Your task to perform on an android device: change the clock display to digital Image 0: 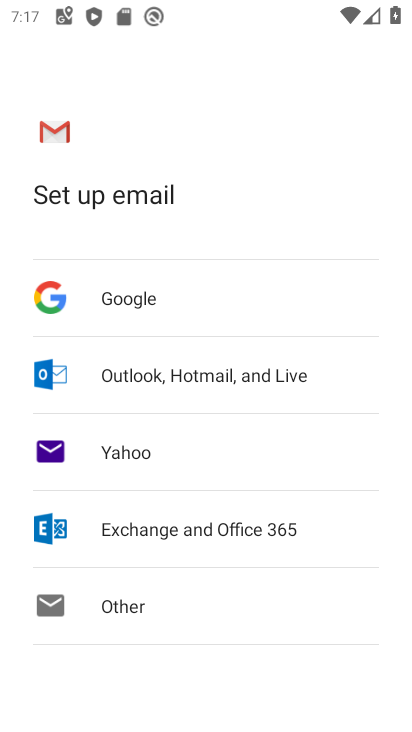
Step 0: press home button
Your task to perform on an android device: change the clock display to digital Image 1: 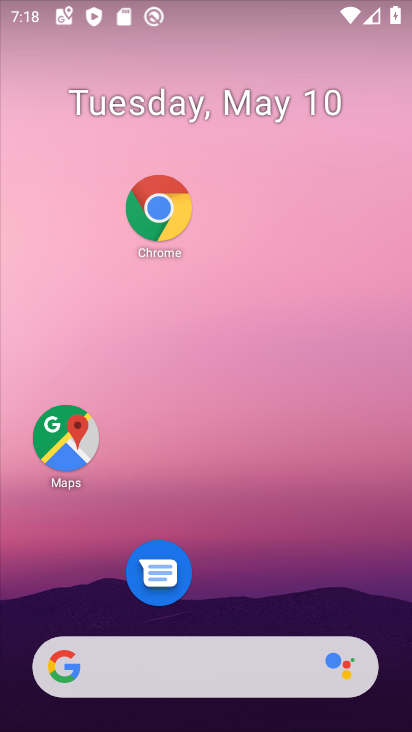
Step 1: drag from (310, 704) to (265, 186)
Your task to perform on an android device: change the clock display to digital Image 2: 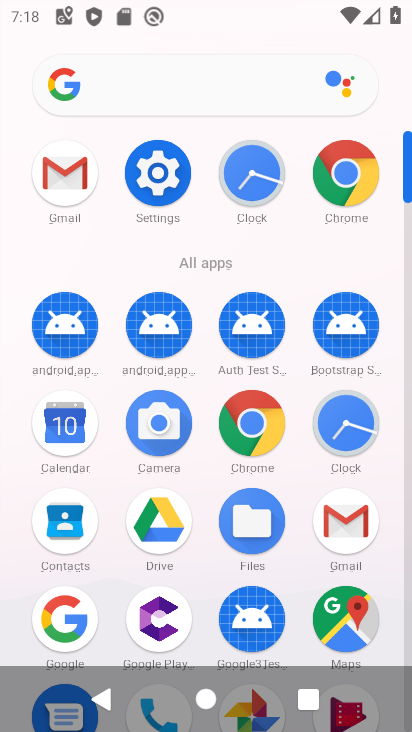
Step 2: click (258, 185)
Your task to perform on an android device: change the clock display to digital Image 3: 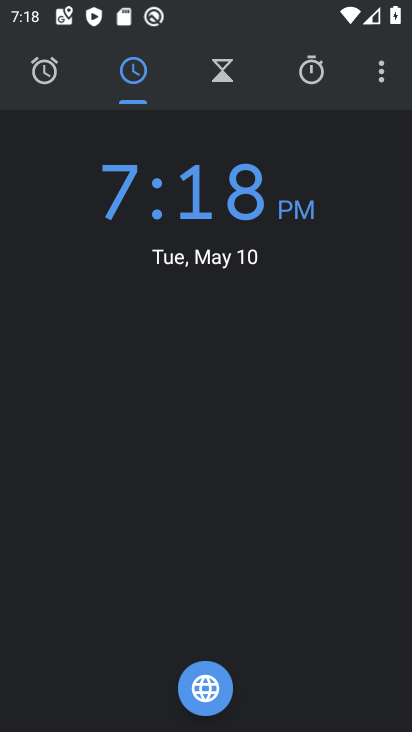
Step 3: click (384, 74)
Your task to perform on an android device: change the clock display to digital Image 4: 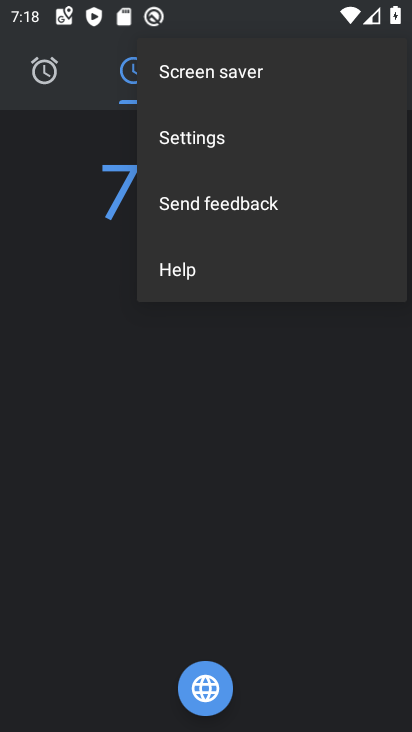
Step 4: click (221, 144)
Your task to perform on an android device: change the clock display to digital Image 5: 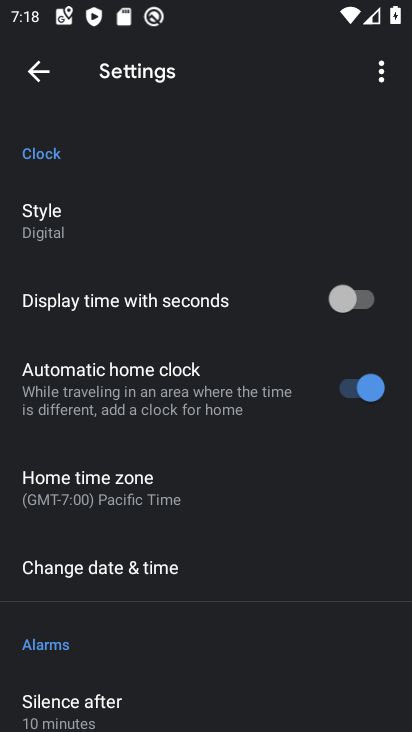
Step 5: click (62, 220)
Your task to perform on an android device: change the clock display to digital Image 6: 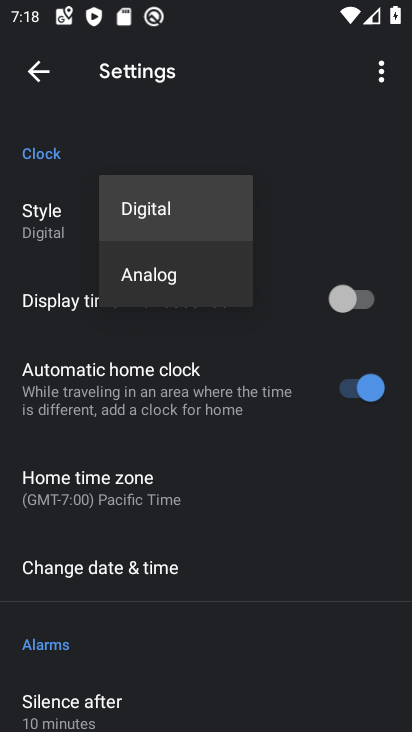
Step 6: click (181, 220)
Your task to perform on an android device: change the clock display to digital Image 7: 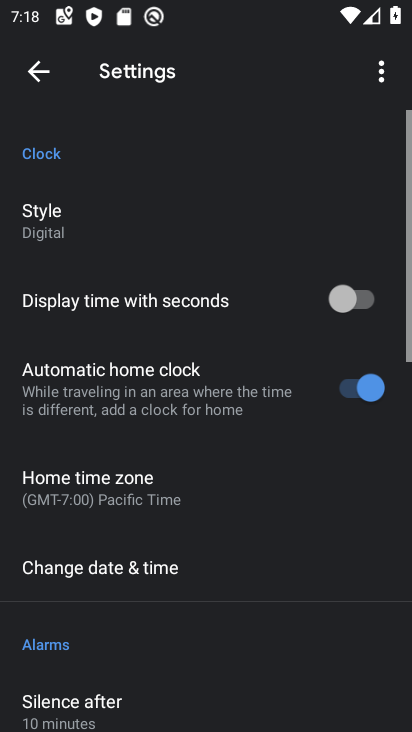
Step 7: task complete